Your task to perform on an android device: check battery use Image 0: 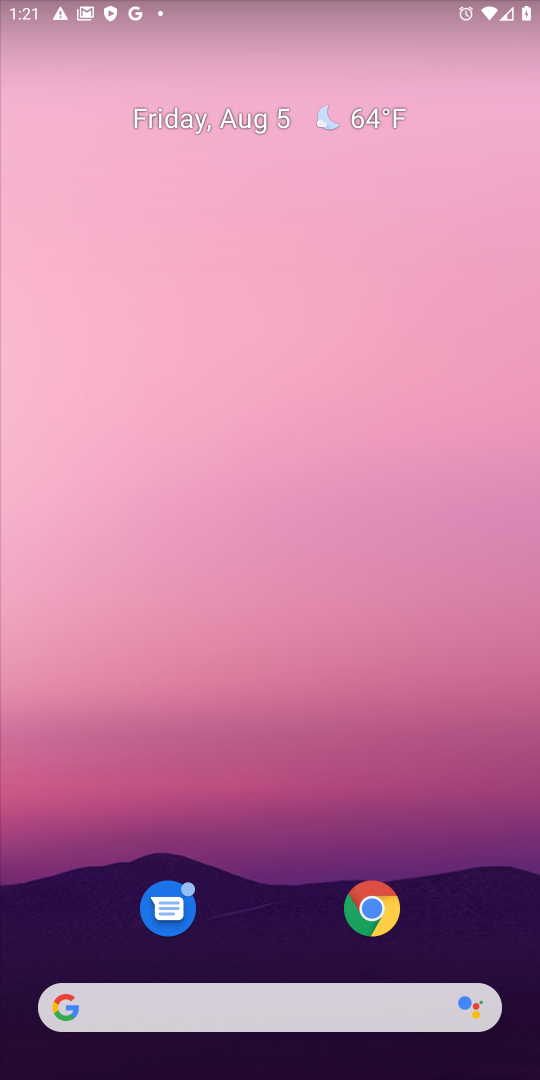
Step 0: press home button
Your task to perform on an android device: check battery use Image 1: 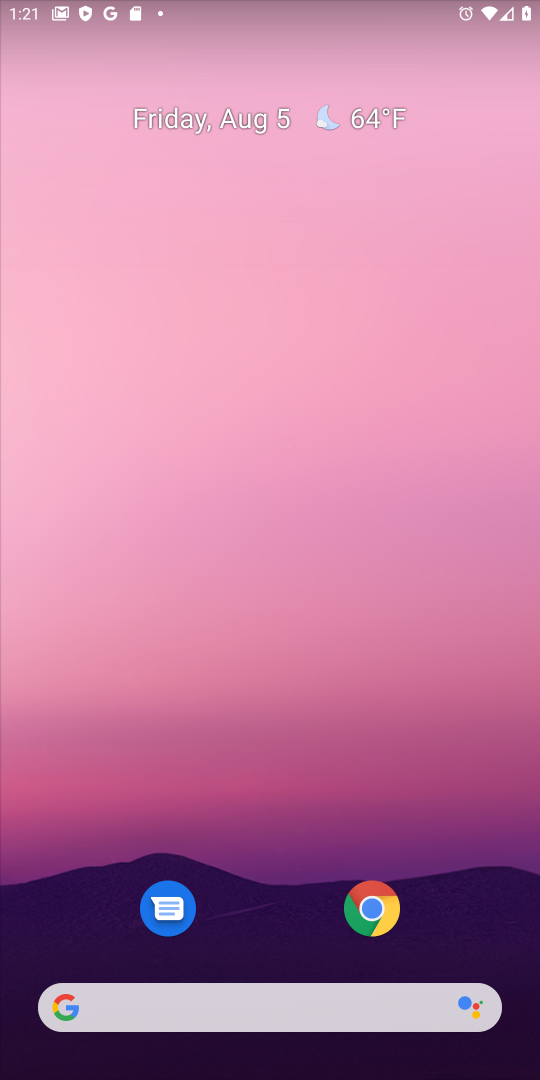
Step 1: drag from (215, 727) to (253, 299)
Your task to perform on an android device: check battery use Image 2: 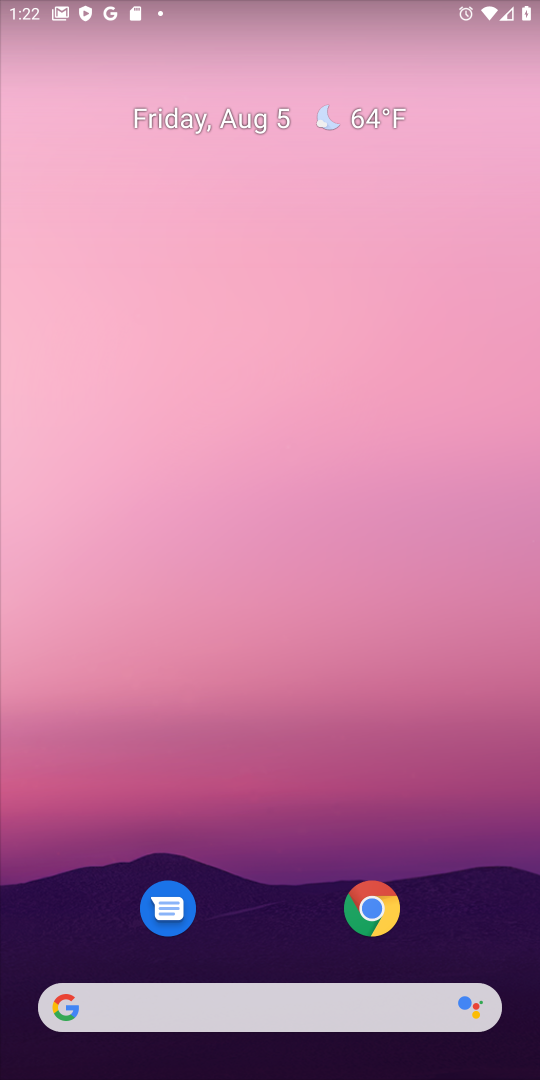
Step 2: drag from (268, 859) to (111, 222)
Your task to perform on an android device: check battery use Image 3: 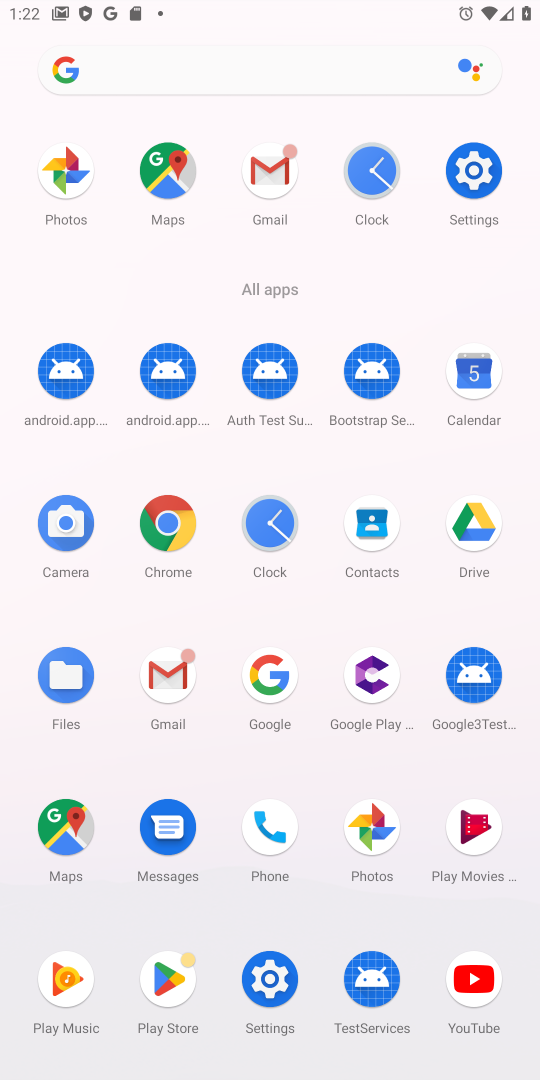
Step 3: click (271, 992)
Your task to perform on an android device: check battery use Image 4: 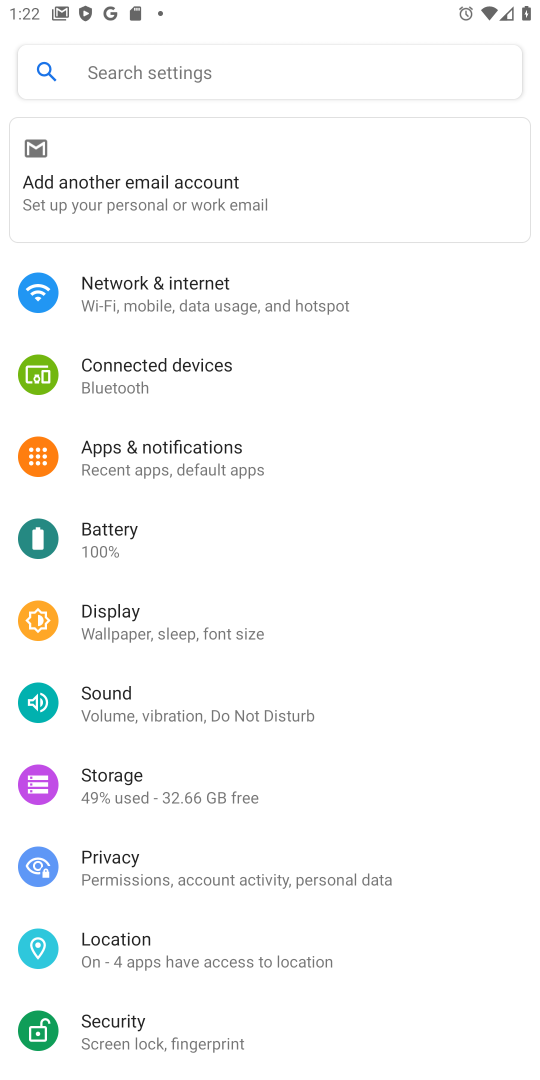
Step 4: click (130, 554)
Your task to perform on an android device: check battery use Image 5: 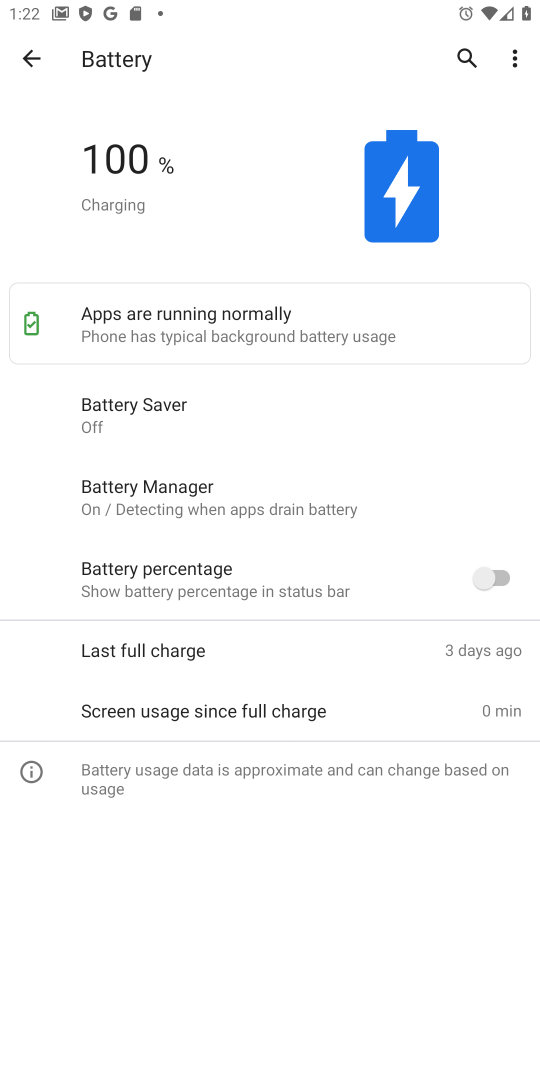
Step 5: task complete